Your task to perform on an android device: change notifications settings Image 0: 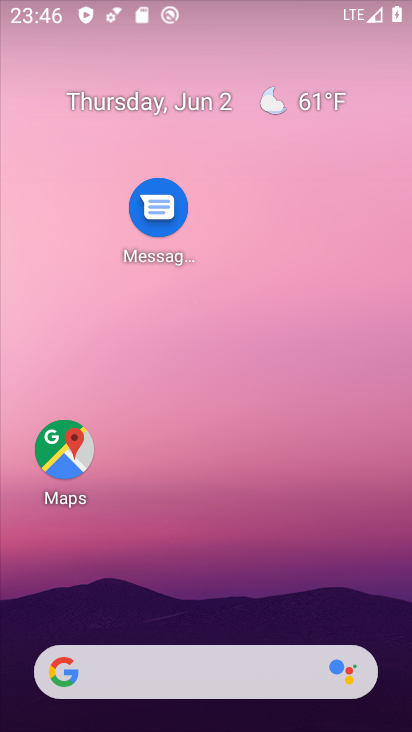
Step 0: drag from (193, 628) to (213, 0)
Your task to perform on an android device: change notifications settings Image 1: 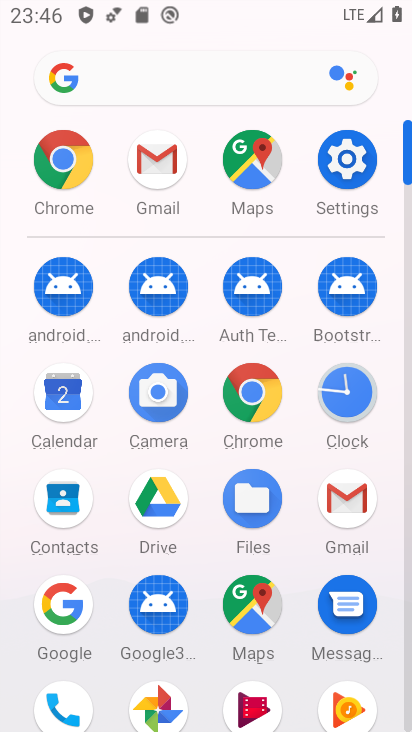
Step 1: click (355, 168)
Your task to perform on an android device: change notifications settings Image 2: 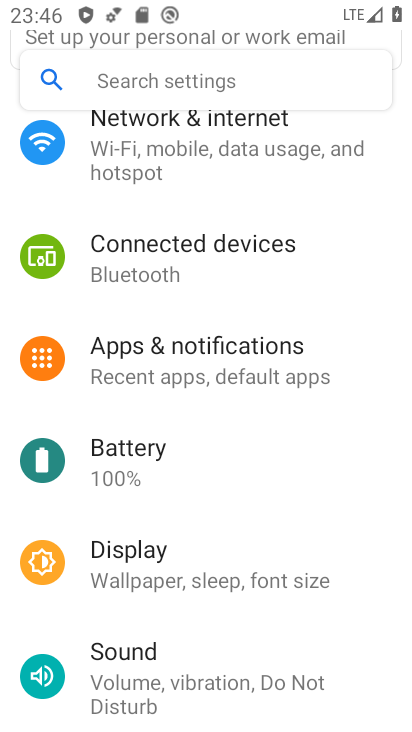
Step 2: click (164, 351)
Your task to perform on an android device: change notifications settings Image 3: 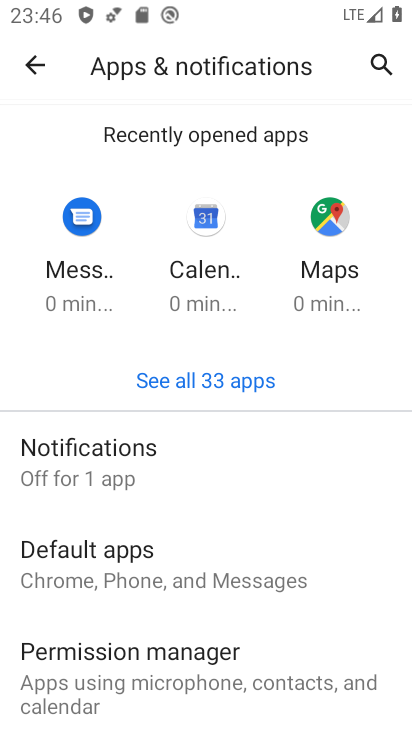
Step 3: click (161, 477)
Your task to perform on an android device: change notifications settings Image 4: 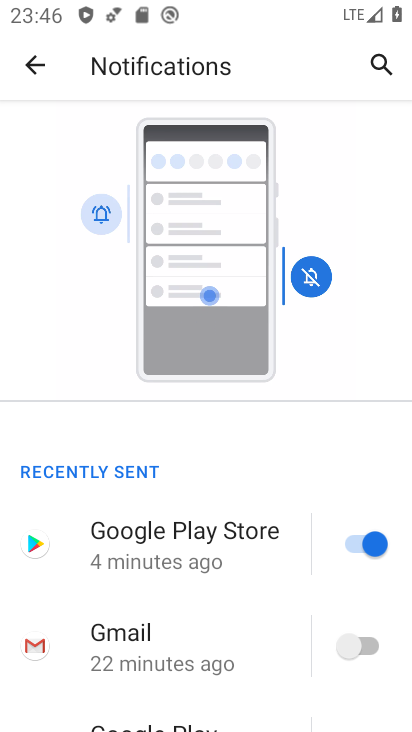
Step 4: task complete